Your task to perform on an android device: change the clock style Image 0: 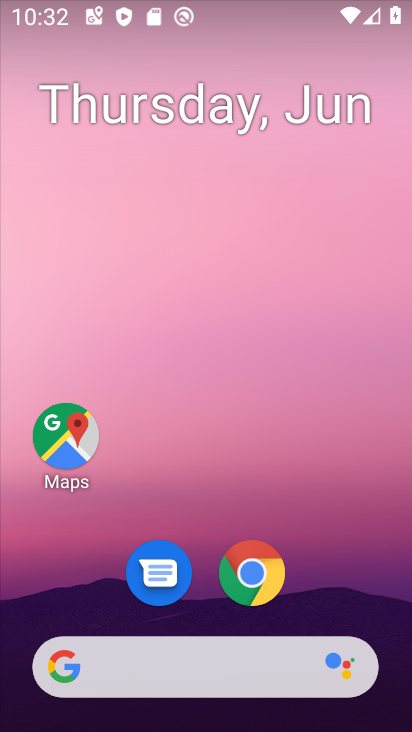
Step 0: drag from (208, 624) to (210, 50)
Your task to perform on an android device: change the clock style Image 1: 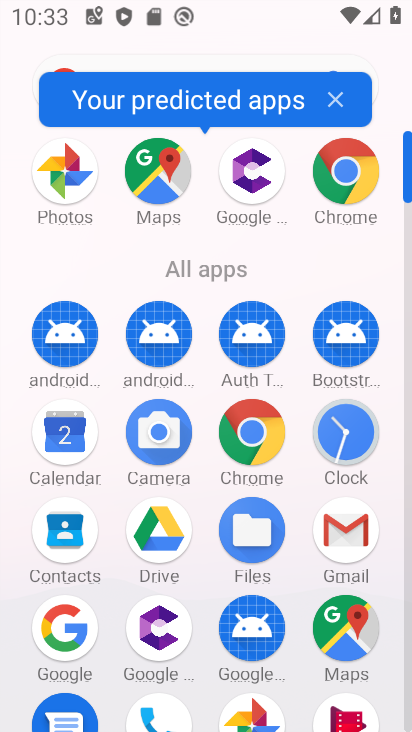
Step 1: click (349, 423)
Your task to perform on an android device: change the clock style Image 2: 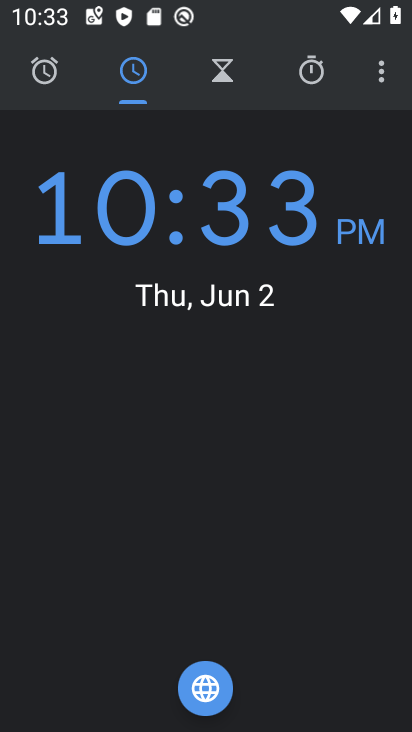
Step 2: click (376, 71)
Your task to perform on an android device: change the clock style Image 3: 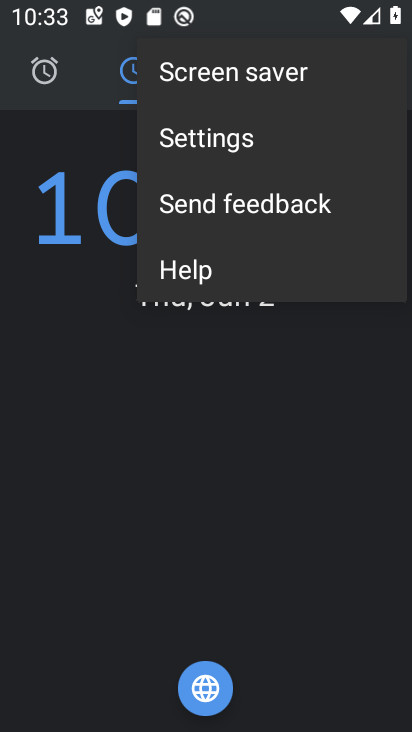
Step 3: click (264, 134)
Your task to perform on an android device: change the clock style Image 4: 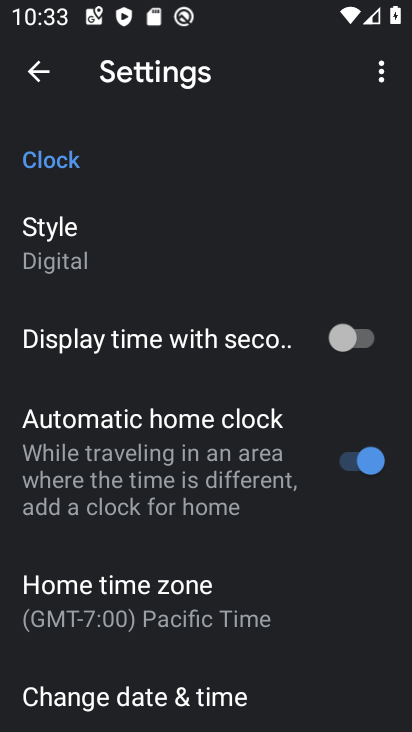
Step 4: click (124, 241)
Your task to perform on an android device: change the clock style Image 5: 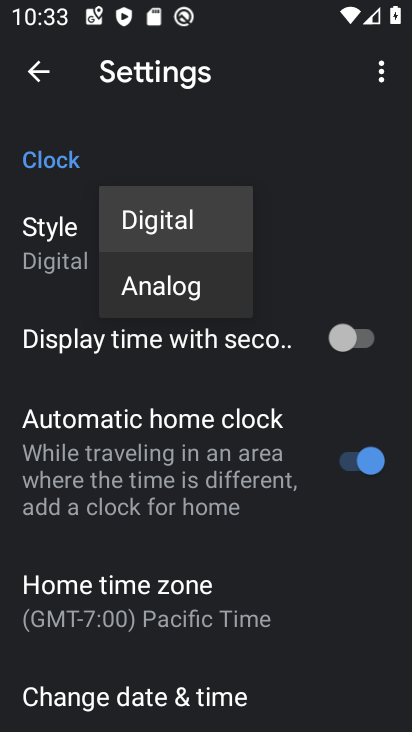
Step 5: click (208, 281)
Your task to perform on an android device: change the clock style Image 6: 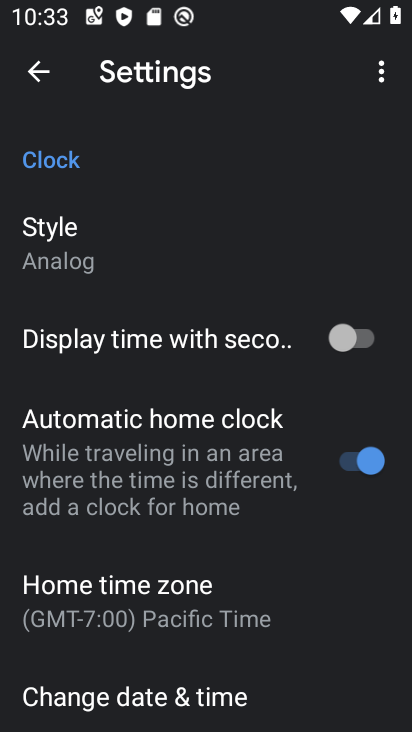
Step 6: task complete